Your task to perform on an android device: turn off javascript in the chrome app Image 0: 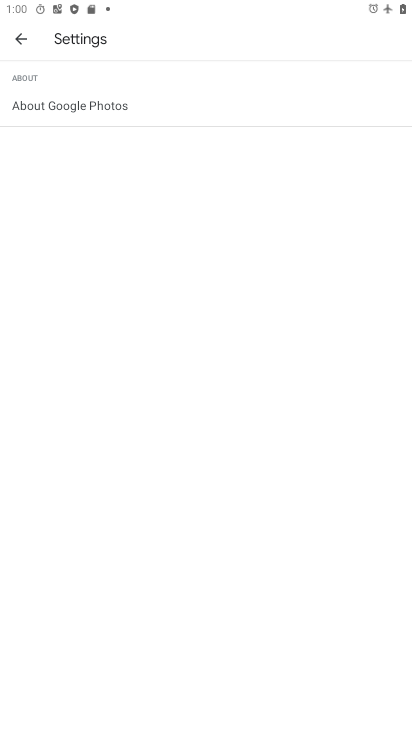
Step 0: click (411, 482)
Your task to perform on an android device: turn off javascript in the chrome app Image 1: 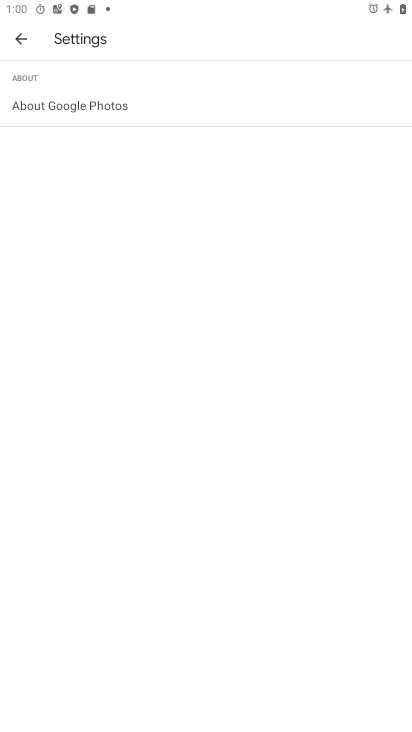
Step 1: press home button
Your task to perform on an android device: turn off javascript in the chrome app Image 2: 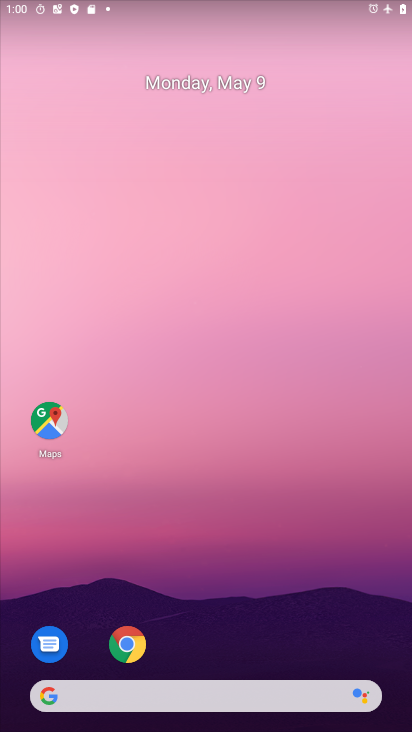
Step 2: drag from (378, 695) to (152, 89)
Your task to perform on an android device: turn off javascript in the chrome app Image 3: 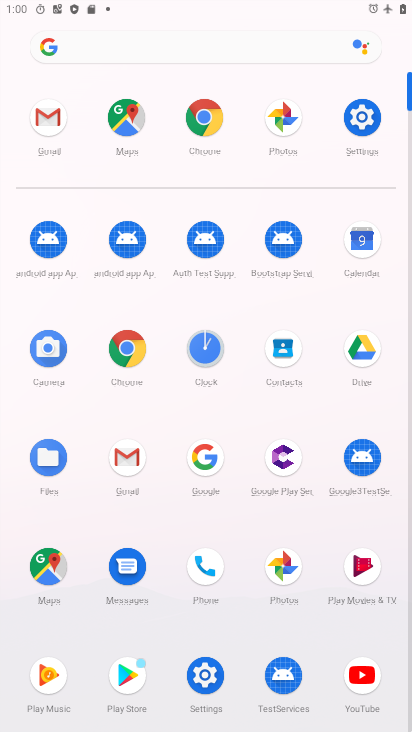
Step 3: click (211, 127)
Your task to perform on an android device: turn off javascript in the chrome app Image 4: 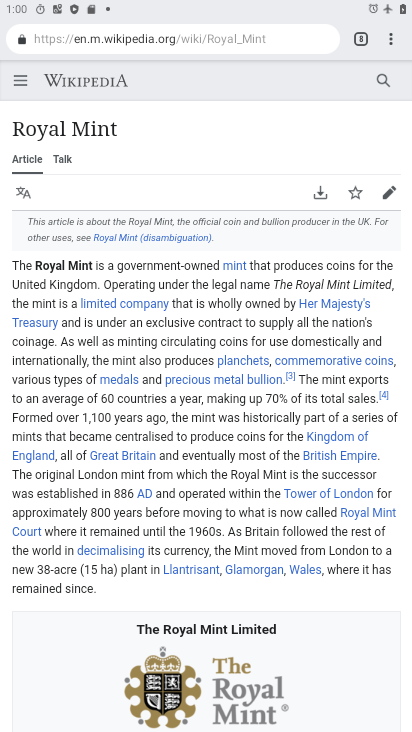
Step 4: drag from (387, 29) to (256, 441)
Your task to perform on an android device: turn off javascript in the chrome app Image 5: 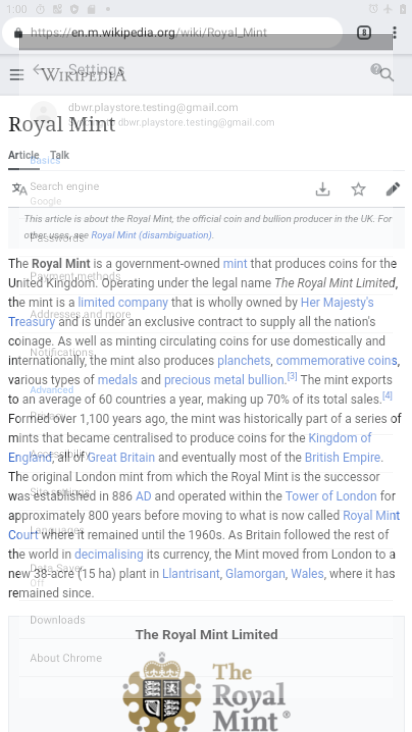
Step 5: click (255, 441)
Your task to perform on an android device: turn off javascript in the chrome app Image 6: 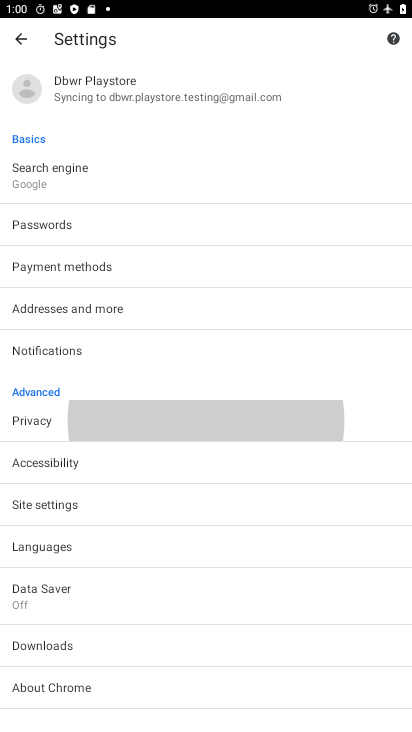
Step 6: click (255, 441)
Your task to perform on an android device: turn off javascript in the chrome app Image 7: 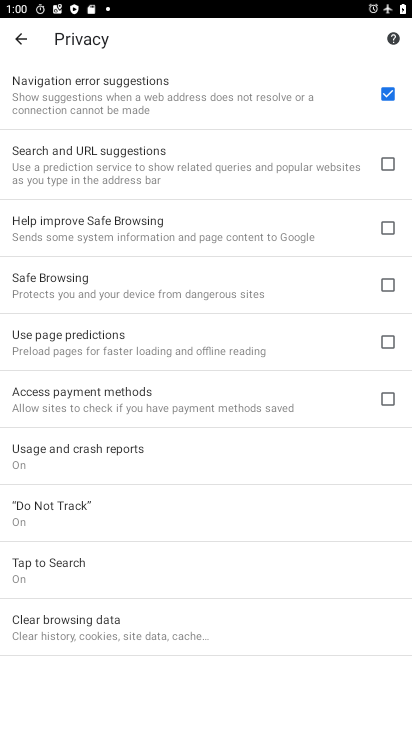
Step 7: click (15, 44)
Your task to perform on an android device: turn off javascript in the chrome app Image 8: 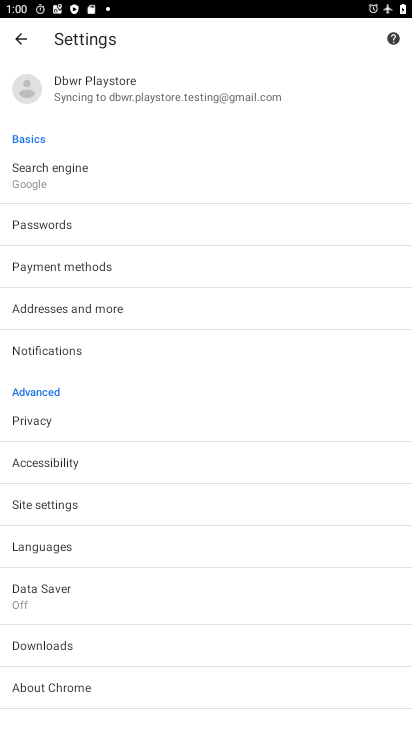
Step 8: click (35, 502)
Your task to perform on an android device: turn off javascript in the chrome app Image 9: 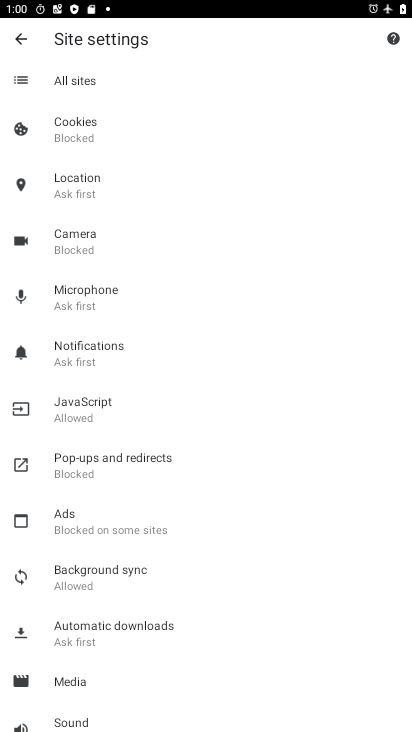
Step 9: click (77, 419)
Your task to perform on an android device: turn off javascript in the chrome app Image 10: 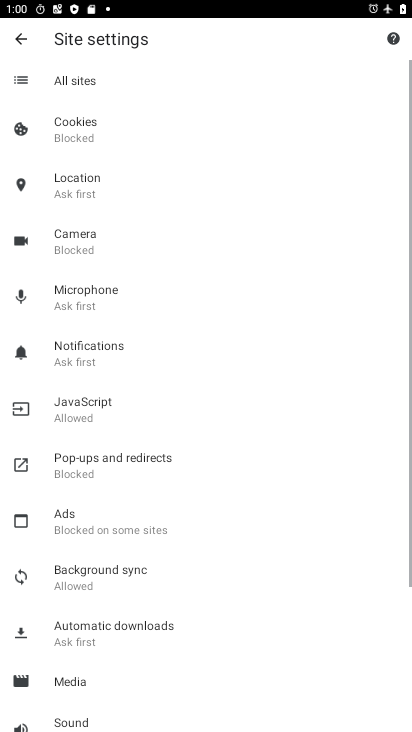
Step 10: click (77, 410)
Your task to perform on an android device: turn off javascript in the chrome app Image 11: 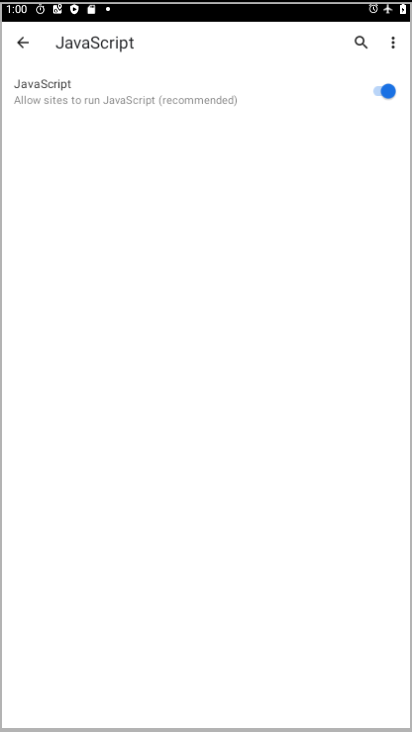
Step 11: click (77, 410)
Your task to perform on an android device: turn off javascript in the chrome app Image 12: 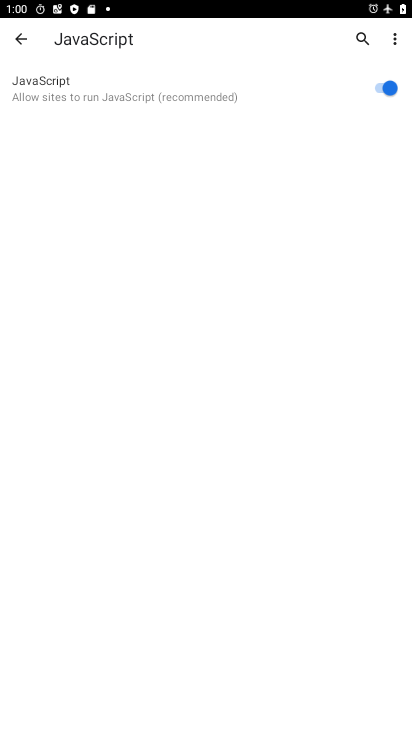
Step 12: click (77, 410)
Your task to perform on an android device: turn off javascript in the chrome app Image 13: 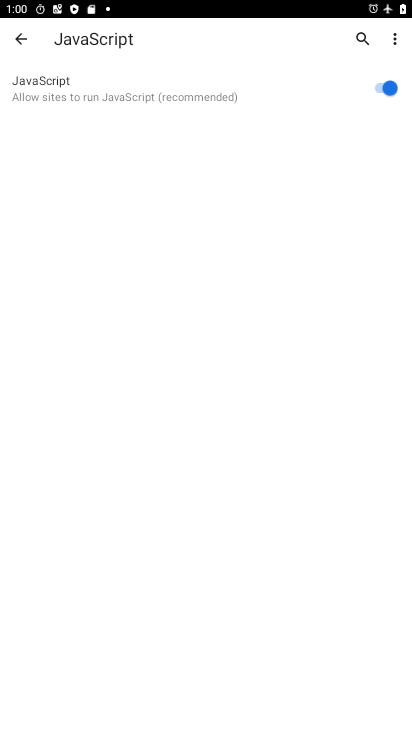
Step 13: click (386, 85)
Your task to perform on an android device: turn off javascript in the chrome app Image 14: 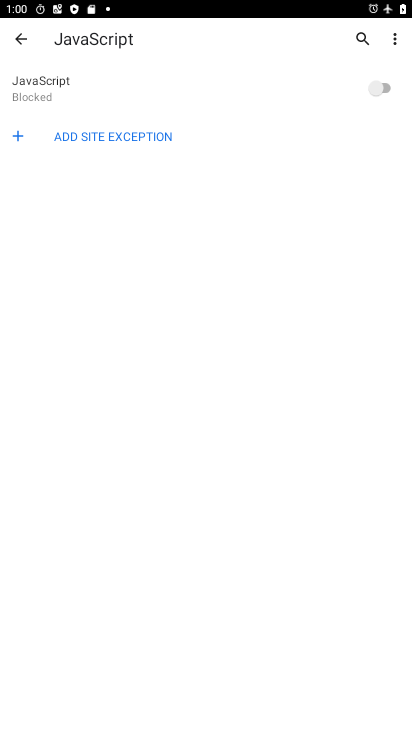
Step 14: task complete